Your task to perform on an android device: Search for pizza restaurants on Maps Image 0: 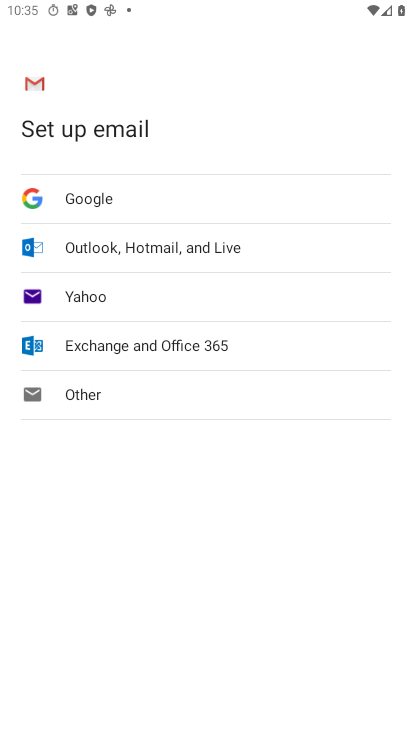
Step 0: press home button
Your task to perform on an android device: Search for pizza restaurants on Maps Image 1: 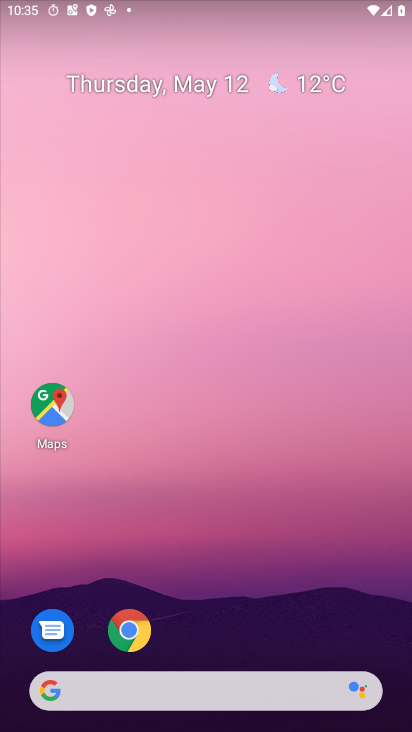
Step 1: click (45, 406)
Your task to perform on an android device: Search for pizza restaurants on Maps Image 2: 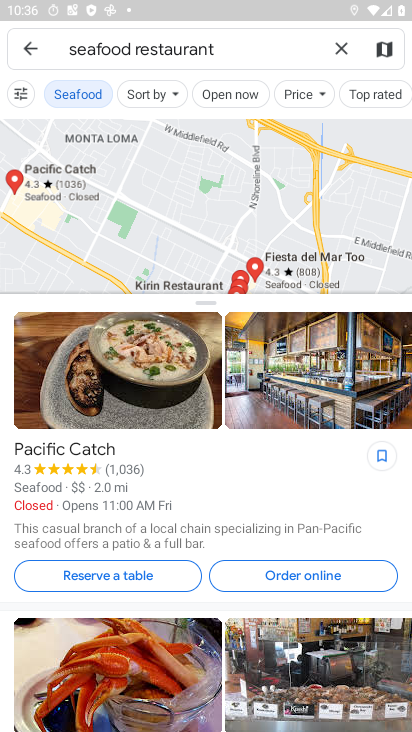
Step 2: click (347, 52)
Your task to perform on an android device: Search for pizza restaurants on Maps Image 3: 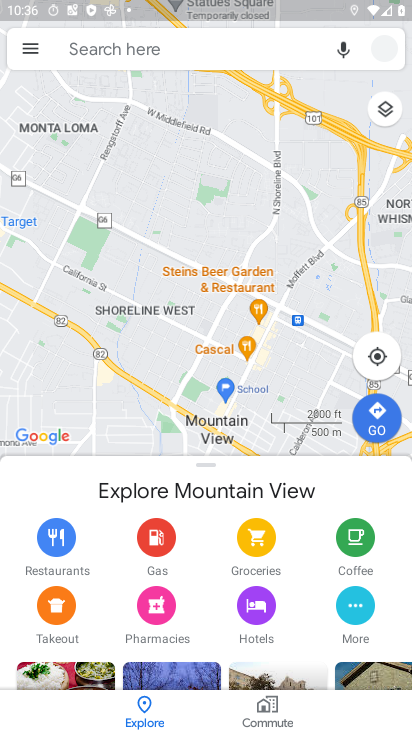
Step 3: click (246, 53)
Your task to perform on an android device: Search for pizza restaurants on Maps Image 4: 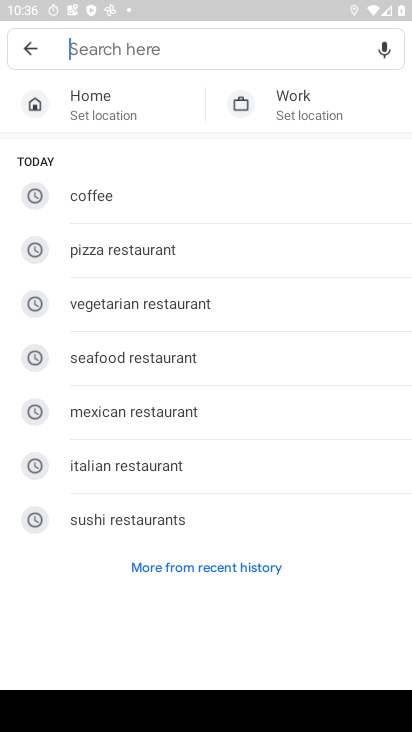
Step 4: click (145, 252)
Your task to perform on an android device: Search for pizza restaurants on Maps Image 5: 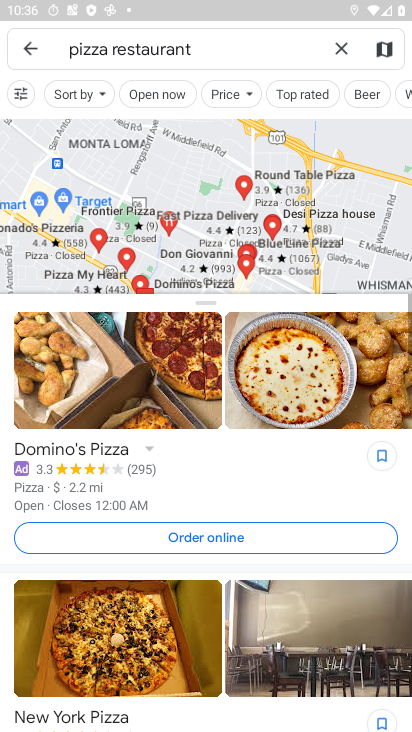
Step 5: task complete